Your task to perform on an android device: Open the stopwatch Image 0: 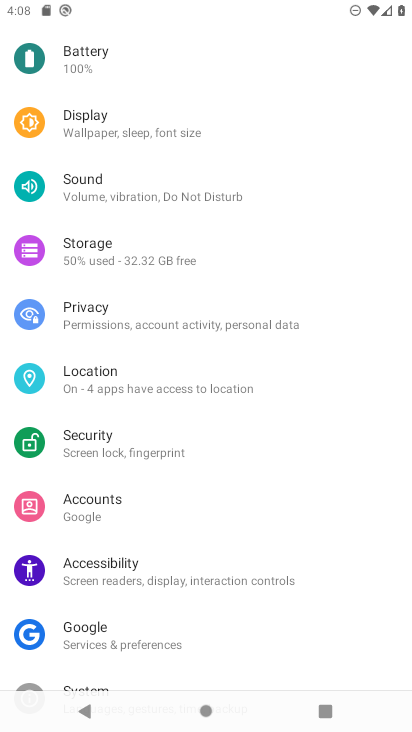
Step 0: press home button
Your task to perform on an android device: Open the stopwatch Image 1: 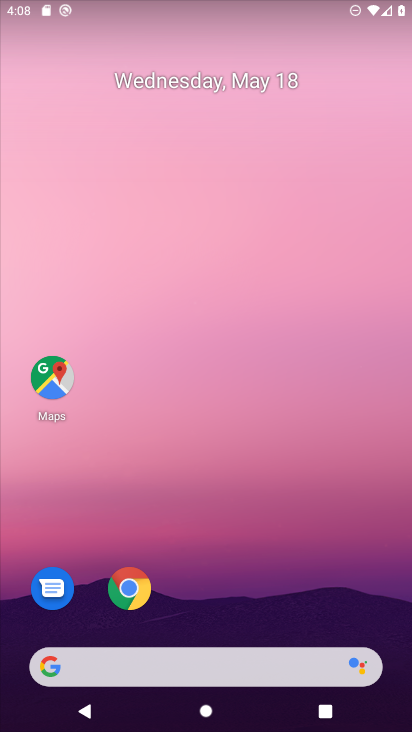
Step 1: drag from (242, 600) to (251, 249)
Your task to perform on an android device: Open the stopwatch Image 2: 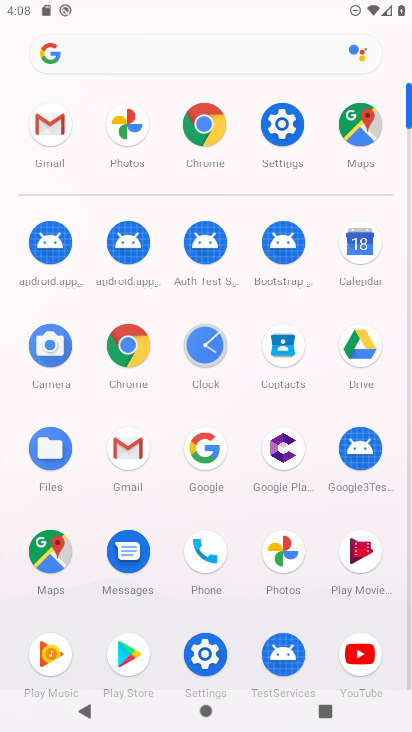
Step 2: click (213, 359)
Your task to perform on an android device: Open the stopwatch Image 3: 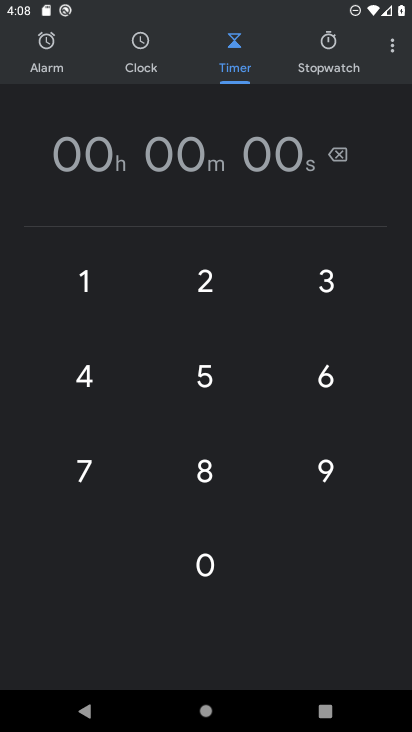
Step 3: click (322, 80)
Your task to perform on an android device: Open the stopwatch Image 4: 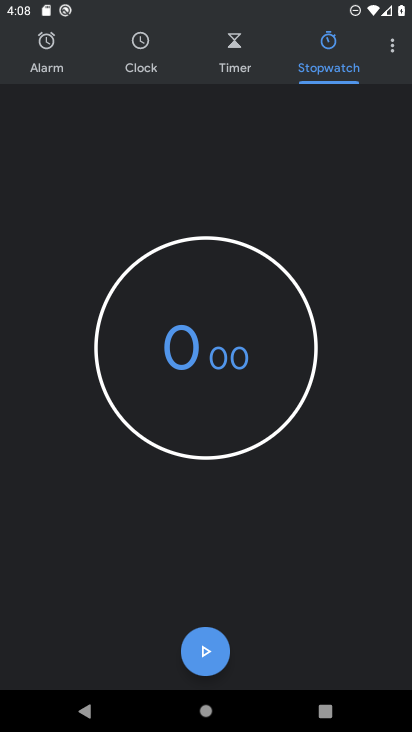
Step 4: task complete